Your task to perform on an android device: Open Google Image 0: 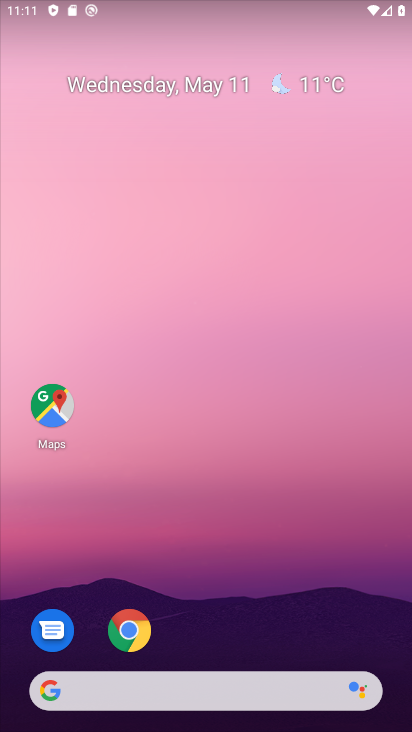
Step 0: drag from (280, 660) to (306, 226)
Your task to perform on an android device: Open Google Image 1: 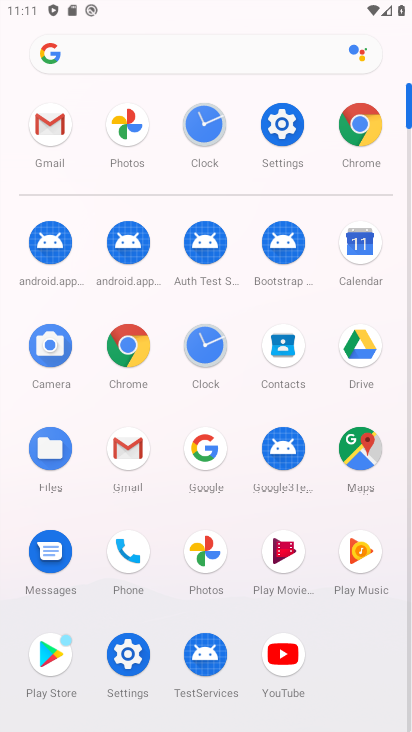
Step 1: drag from (224, 301) to (207, 181)
Your task to perform on an android device: Open Google Image 2: 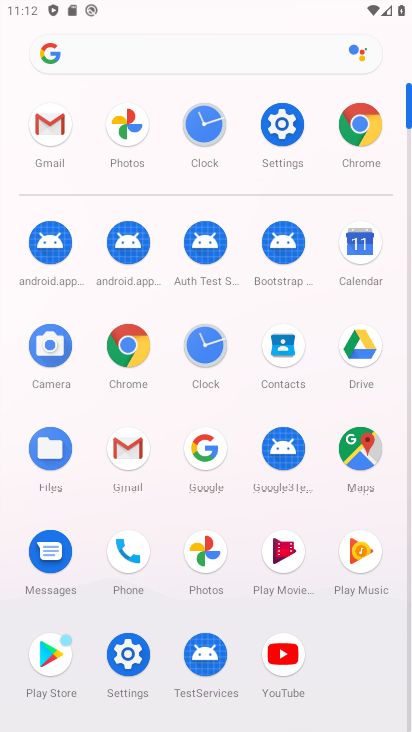
Step 2: click (208, 444)
Your task to perform on an android device: Open Google Image 3: 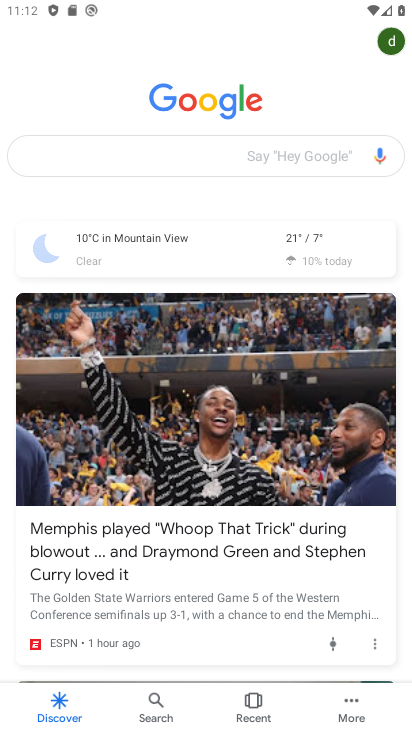
Step 3: task complete